Your task to perform on an android device: turn pop-ups on in chrome Image 0: 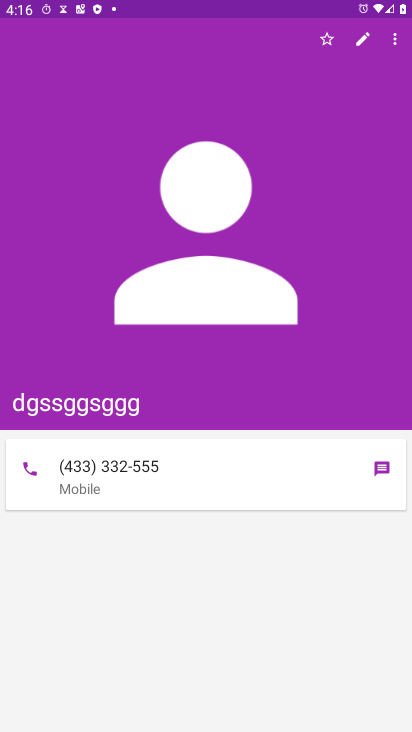
Step 0: press home button
Your task to perform on an android device: turn pop-ups on in chrome Image 1: 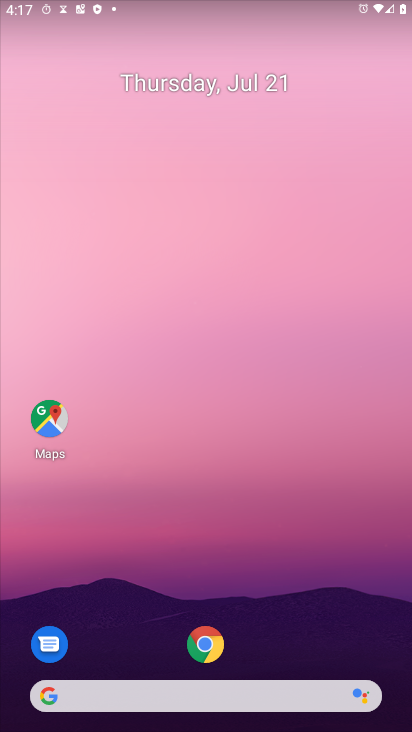
Step 1: drag from (253, 643) to (261, 114)
Your task to perform on an android device: turn pop-ups on in chrome Image 2: 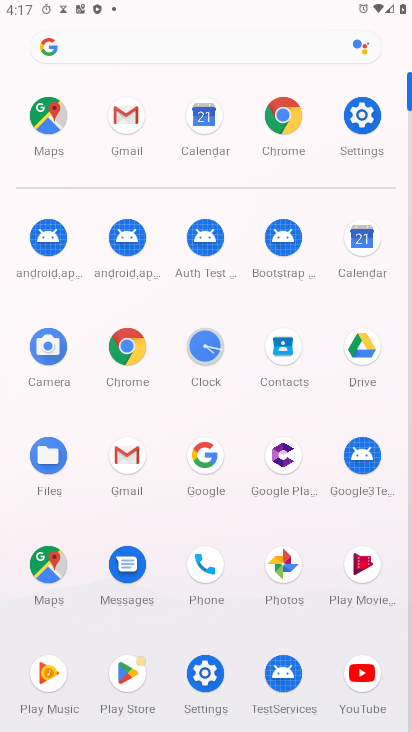
Step 2: click (274, 118)
Your task to perform on an android device: turn pop-ups on in chrome Image 3: 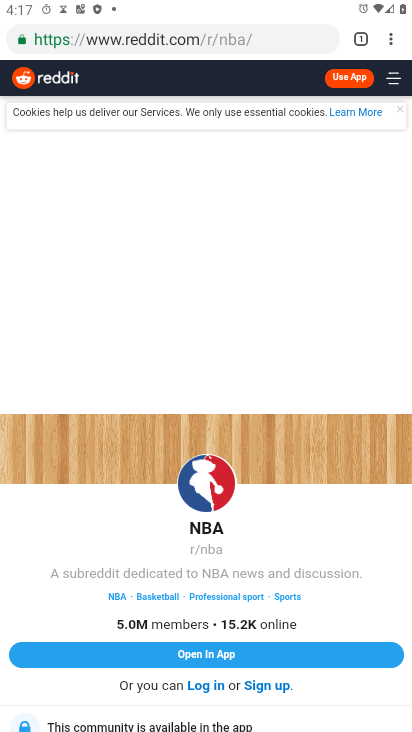
Step 3: drag from (390, 46) to (249, 531)
Your task to perform on an android device: turn pop-ups on in chrome Image 4: 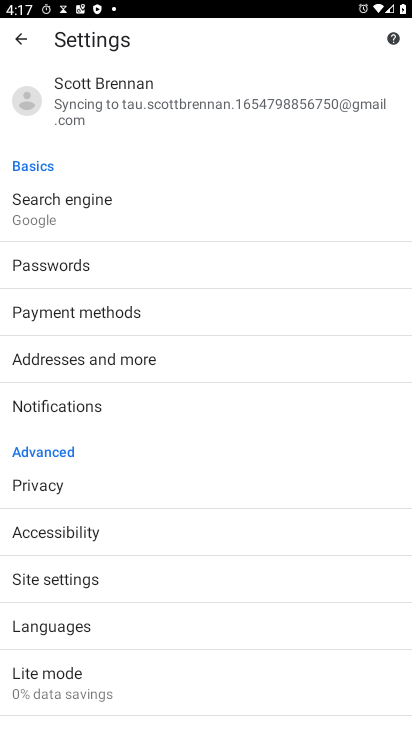
Step 4: click (52, 584)
Your task to perform on an android device: turn pop-ups on in chrome Image 5: 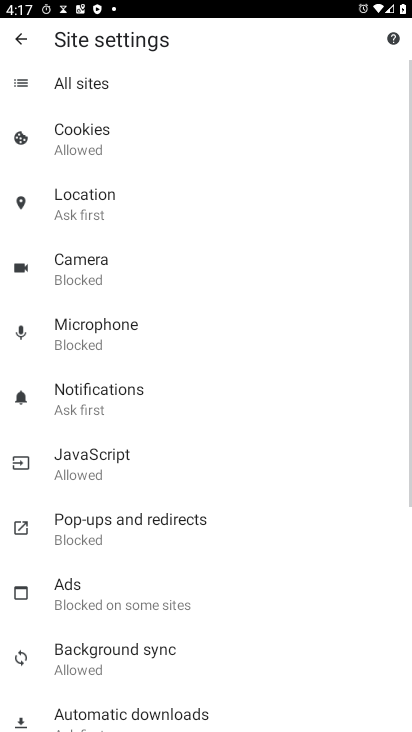
Step 5: click (91, 536)
Your task to perform on an android device: turn pop-ups on in chrome Image 6: 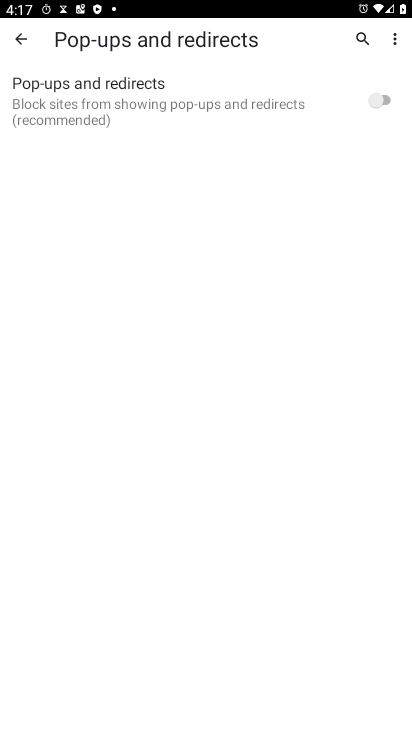
Step 6: click (378, 105)
Your task to perform on an android device: turn pop-ups on in chrome Image 7: 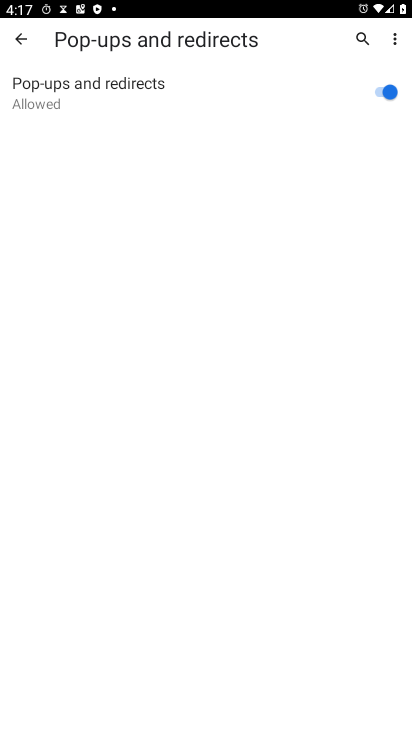
Step 7: task complete